Your task to perform on an android device: Open the stopwatch Image 0: 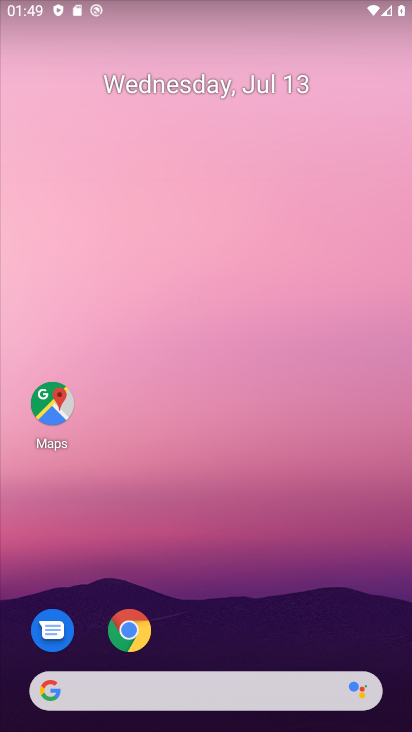
Step 0: click (188, 131)
Your task to perform on an android device: Open the stopwatch Image 1: 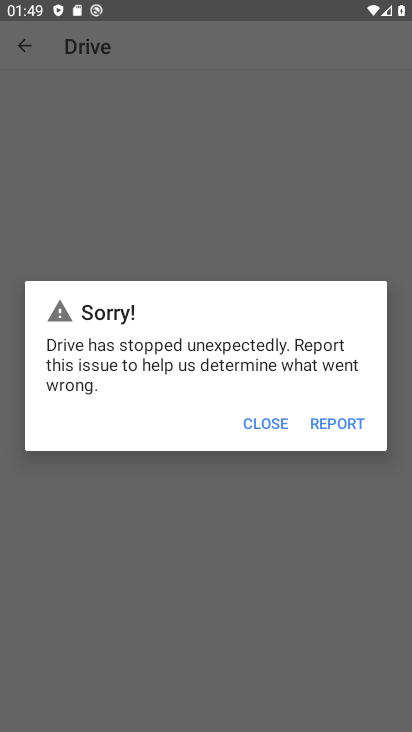
Step 1: press home button
Your task to perform on an android device: Open the stopwatch Image 2: 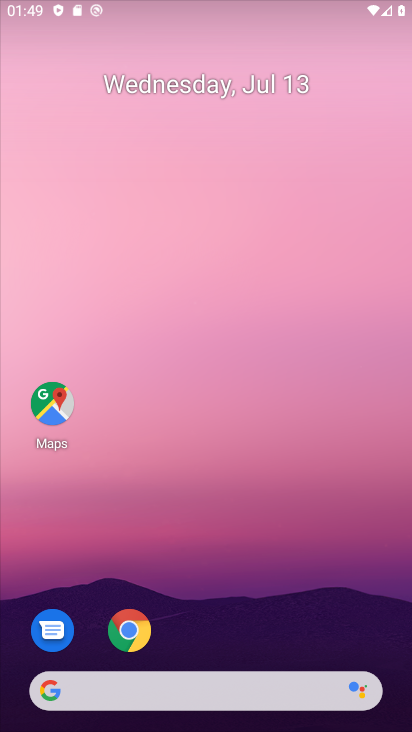
Step 2: drag from (224, 612) to (233, 242)
Your task to perform on an android device: Open the stopwatch Image 3: 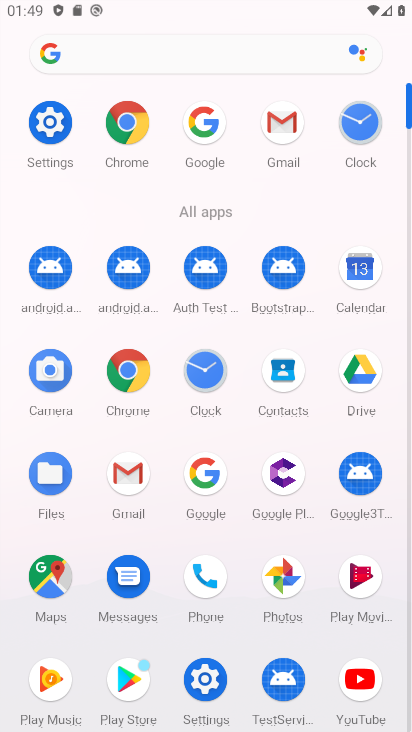
Step 3: click (215, 379)
Your task to perform on an android device: Open the stopwatch Image 4: 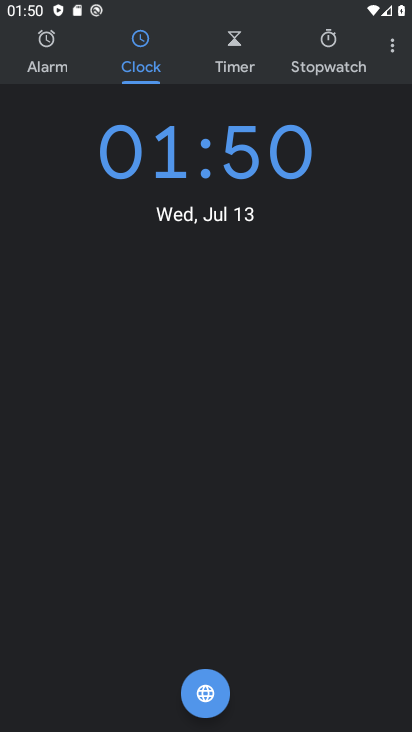
Step 4: click (316, 66)
Your task to perform on an android device: Open the stopwatch Image 5: 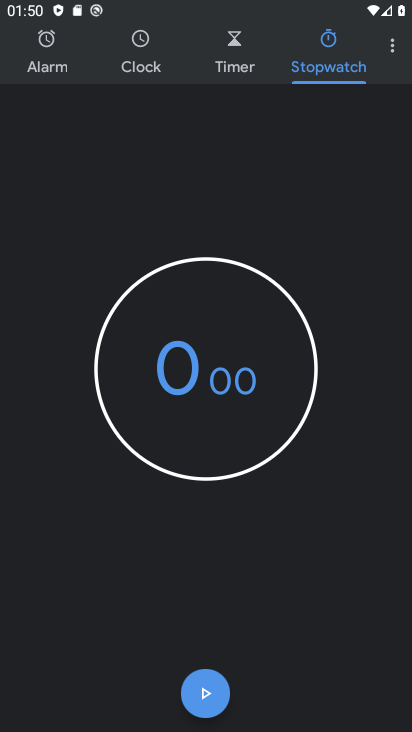
Step 5: task complete